Your task to perform on an android device: Open Google Chrome and open the bookmarks view Image 0: 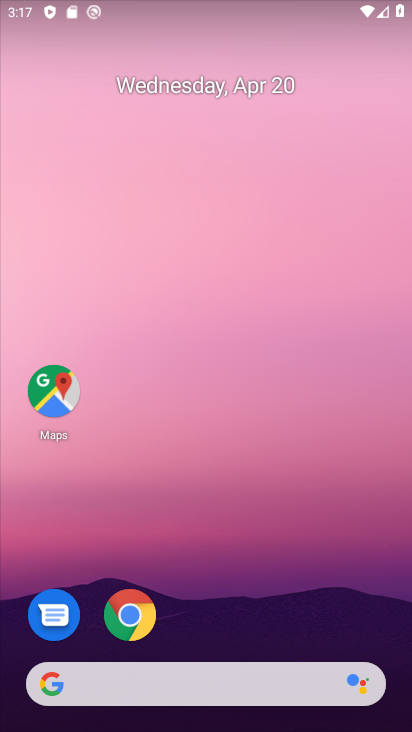
Step 0: click (116, 613)
Your task to perform on an android device: Open Google Chrome and open the bookmarks view Image 1: 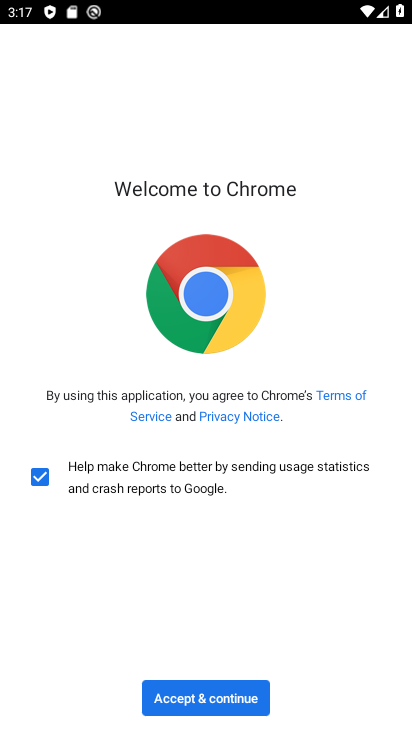
Step 1: click (206, 700)
Your task to perform on an android device: Open Google Chrome and open the bookmarks view Image 2: 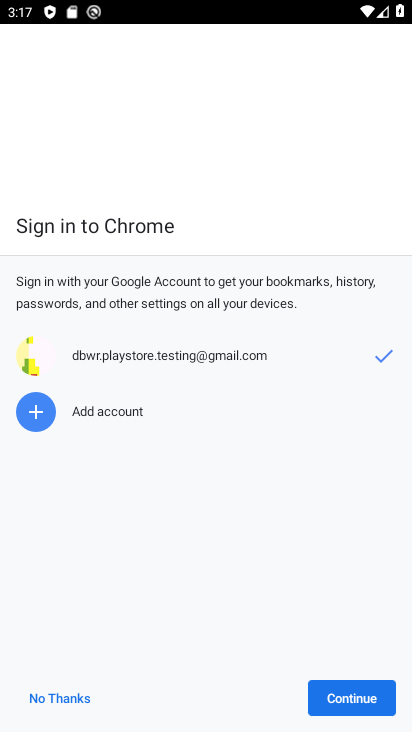
Step 2: click (381, 688)
Your task to perform on an android device: Open Google Chrome and open the bookmarks view Image 3: 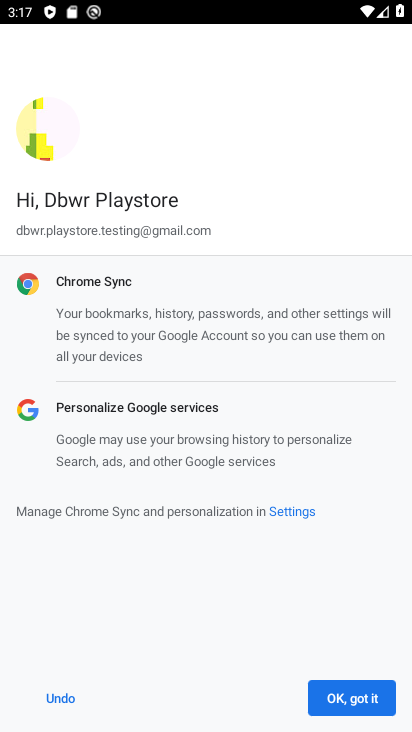
Step 3: click (381, 688)
Your task to perform on an android device: Open Google Chrome and open the bookmarks view Image 4: 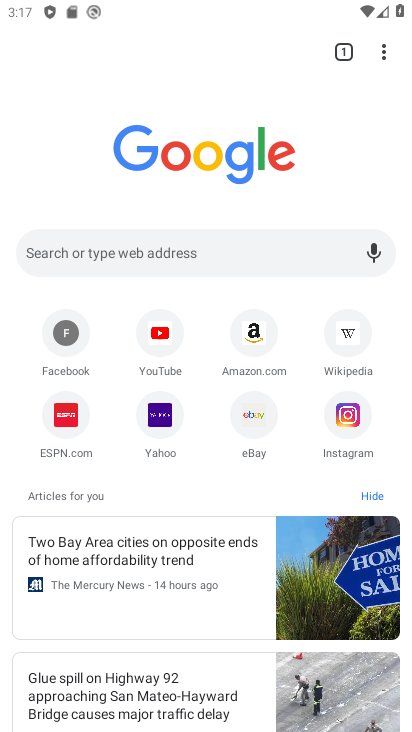
Step 4: task complete